Your task to perform on an android device: Is it going to rain tomorrow? Image 0: 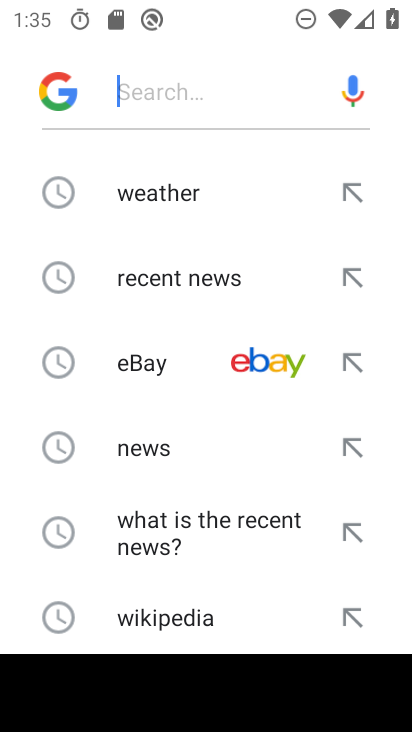
Step 0: click (232, 187)
Your task to perform on an android device: Is it going to rain tomorrow? Image 1: 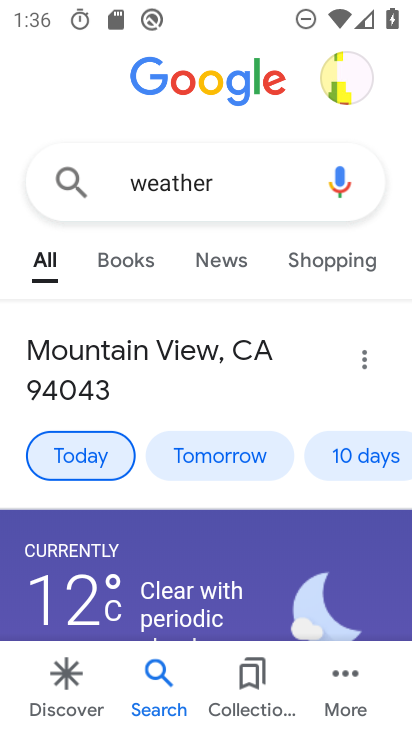
Step 1: click (239, 444)
Your task to perform on an android device: Is it going to rain tomorrow? Image 2: 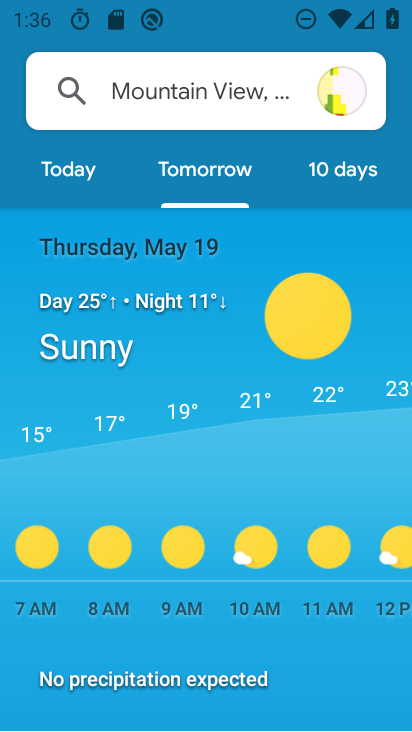
Step 2: task complete